Your task to perform on an android device: Show me recent news Image 0: 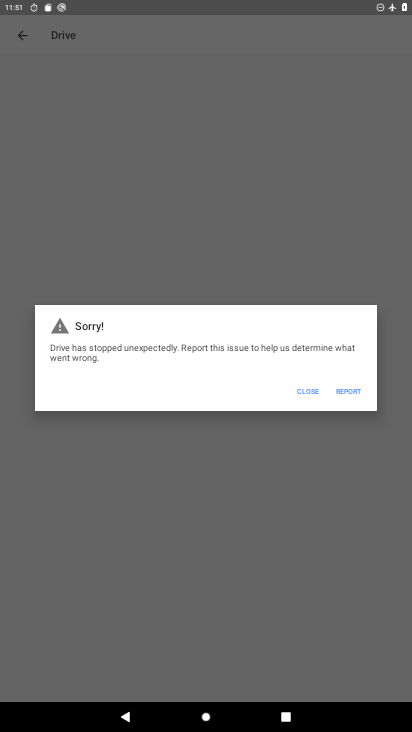
Step 0: press home button
Your task to perform on an android device: Show me recent news Image 1: 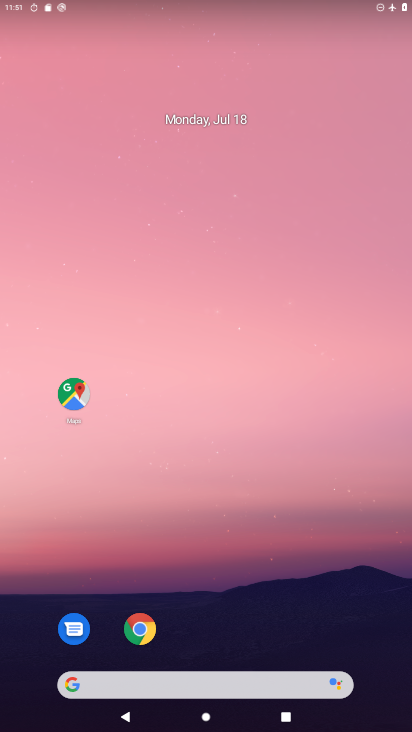
Step 1: drag from (334, 621) to (267, 124)
Your task to perform on an android device: Show me recent news Image 2: 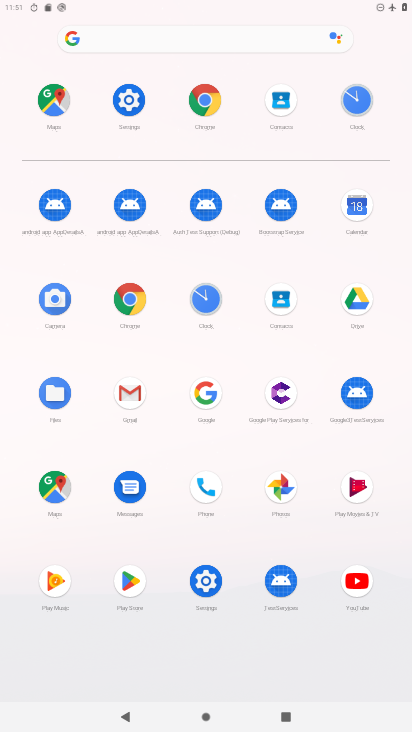
Step 2: click (208, 103)
Your task to perform on an android device: Show me recent news Image 3: 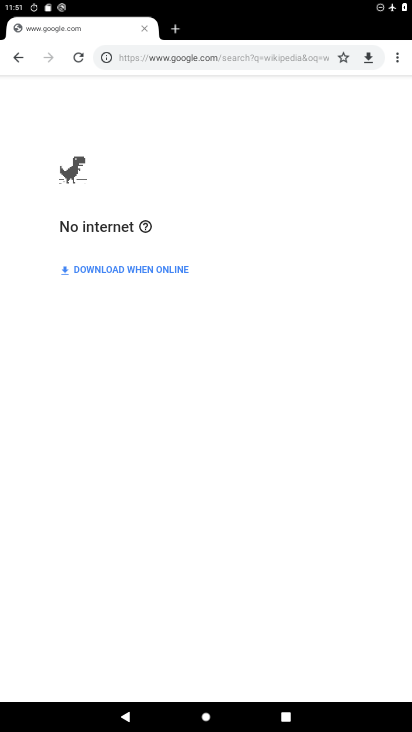
Step 3: click (197, 56)
Your task to perform on an android device: Show me recent news Image 4: 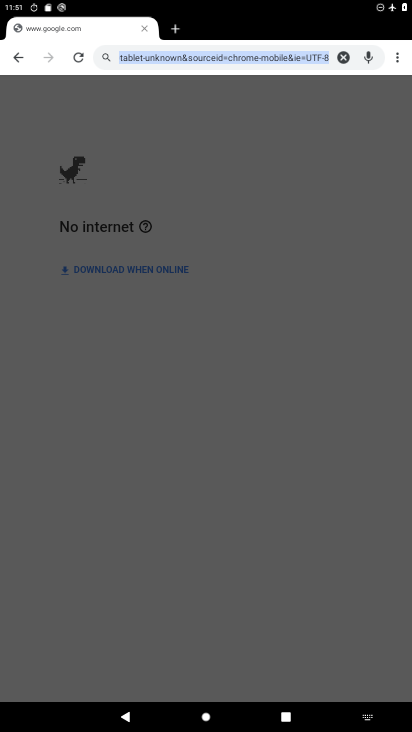
Step 4: type "news"
Your task to perform on an android device: Show me recent news Image 5: 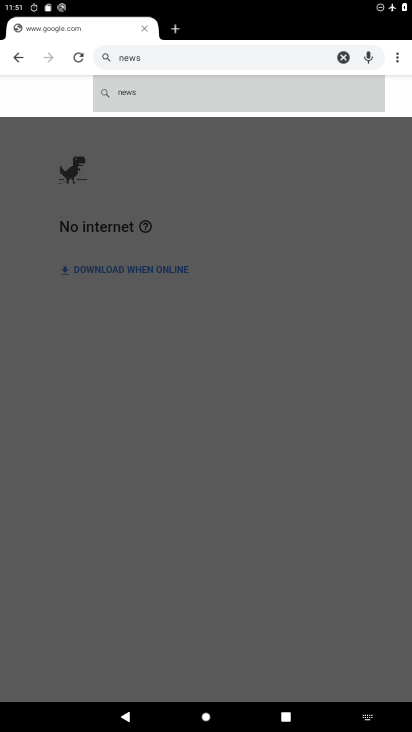
Step 5: click (271, 98)
Your task to perform on an android device: Show me recent news Image 6: 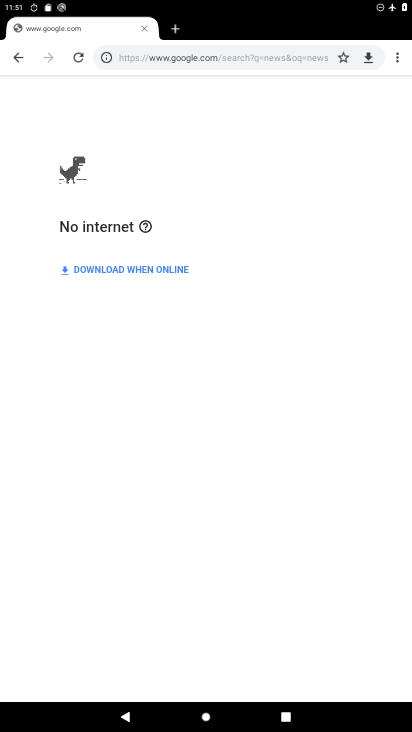
Step 6: task complete